Your task to perform on an android device: Show me popular videos on Youtube Image 0: 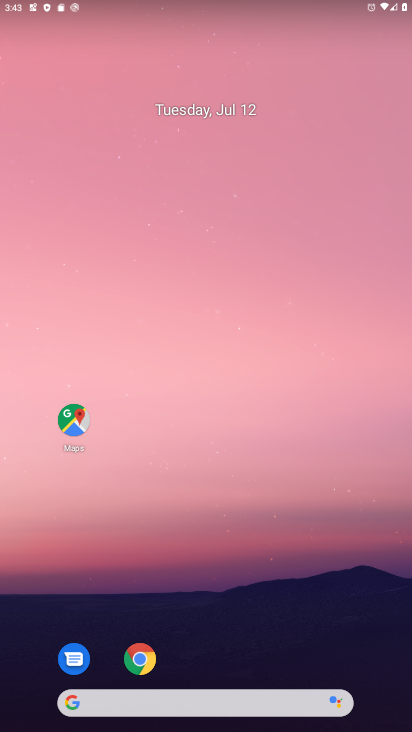
Step 0: drag from (208, 635) to (261, 229)
Your task to perform on an android device: Show me popular videos on Youtube Image 1: 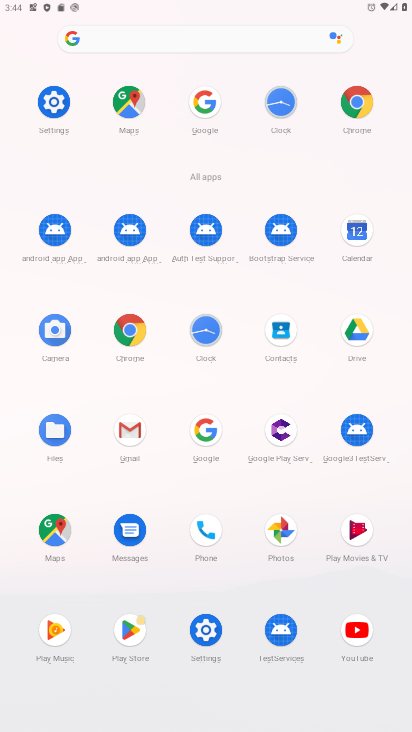
Step 1: click (352, 615)
Your task to perform on an android device: Show me popular videos on Youtube Image 2: 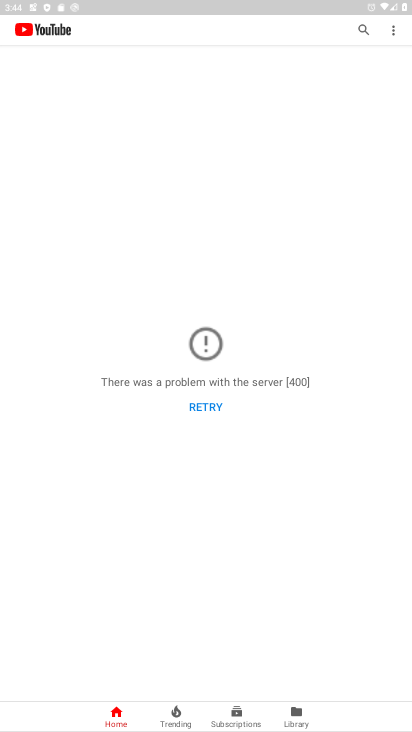
Step 2: click (293, 713)
Your task to perform on an android device: Show me popular videos on Youtube Image 3: 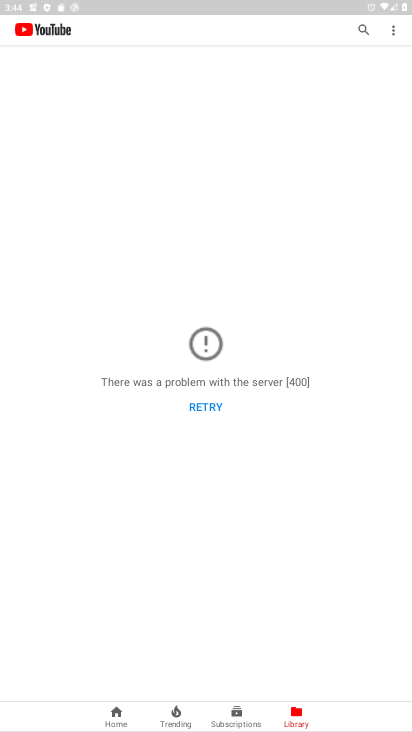
Step 3: task complete